Your task to perform on an android device: Toggle the flashlight Image 0: 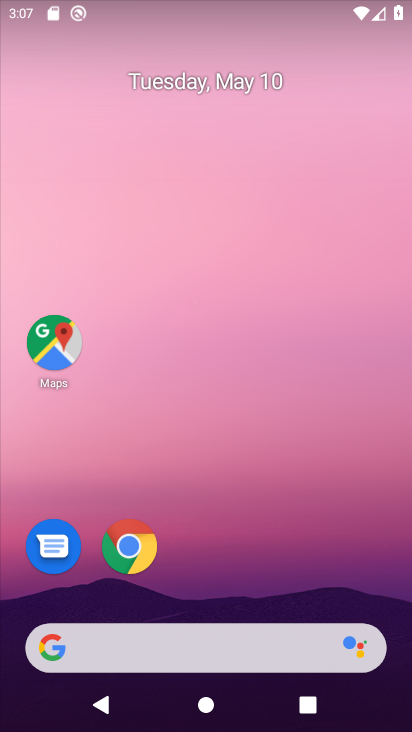
Step 0: drag from (353, 5) to (302, 532)
Your task to perform on an android device: Toggle the flashlight Image 1: 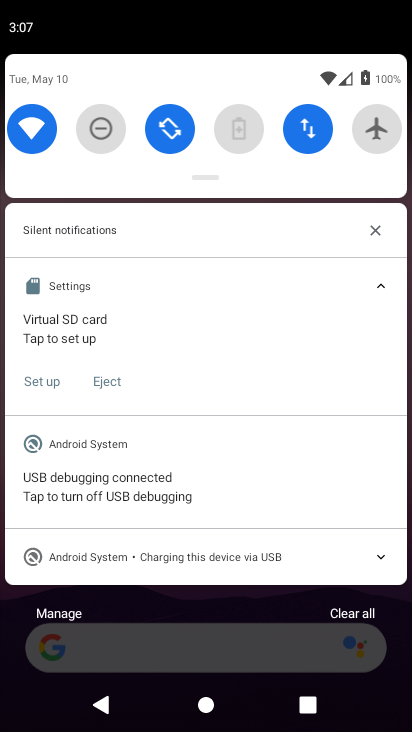
Step 1: task complete